Your task to perform on an android device: What's on my calendar tomorrow? Image 0: 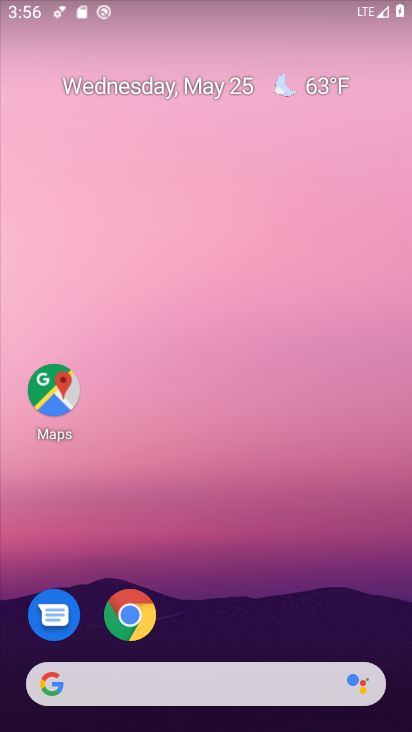
Step 0: drag from (307, 553) to (172, 90)
Your task to perform on an android device: What's on my calendar tomorrow? Image 1: 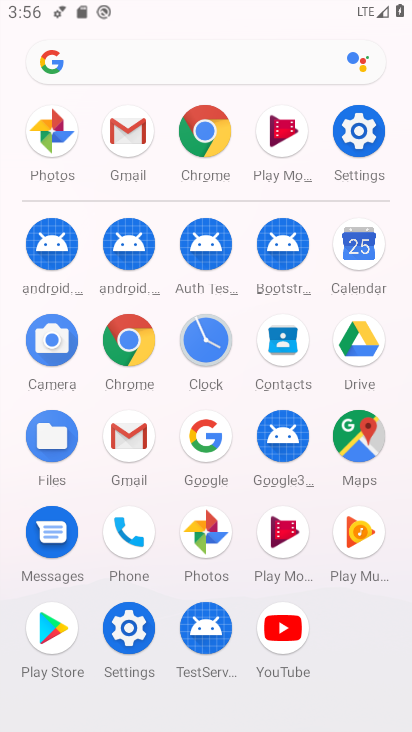
Step 1: click (355, 257)
Your task to perform on an android device: What's on my calendar tomorrow? Image 2: 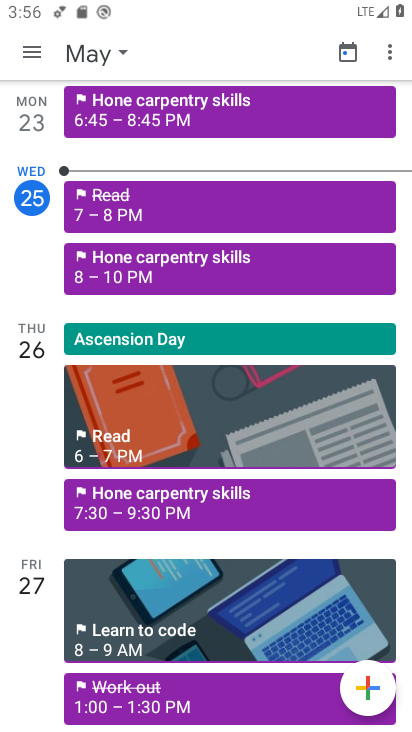
Step 2: task complete